Your task to perform on an android device: Open CNN.com Image 0: 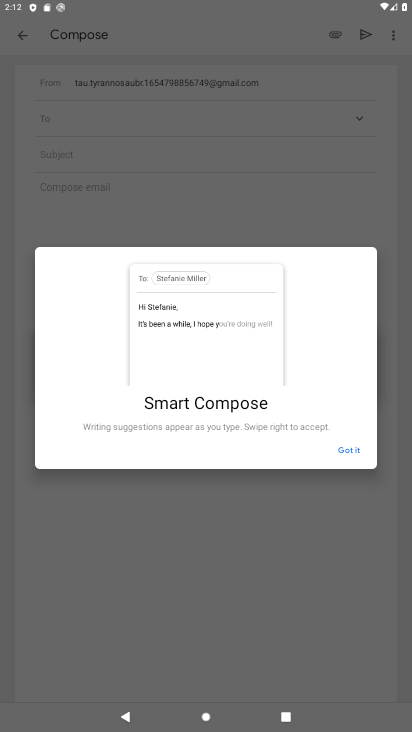
Step 0: press home button
Your task to perform on an android device: Open CNN.com Image 1: 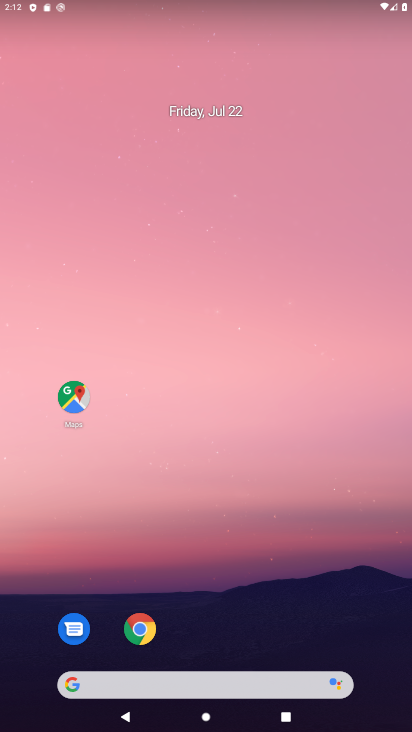
Step 1: click (134, 626)
Your task to perform on an android device: Open CNN.com Image 2: 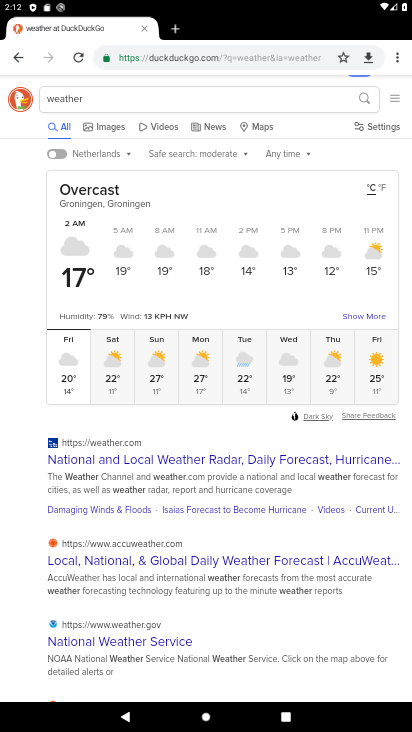
Step 2: click (211, 51)
Your task to perform on an android device: Open CNN.com Image 3: 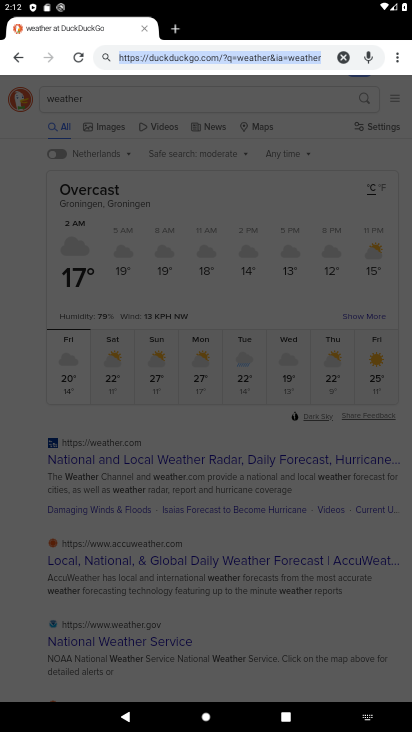
Step 3: type "cnn.com"
Your task to perform on an android device: Open CNN.com Image 4: 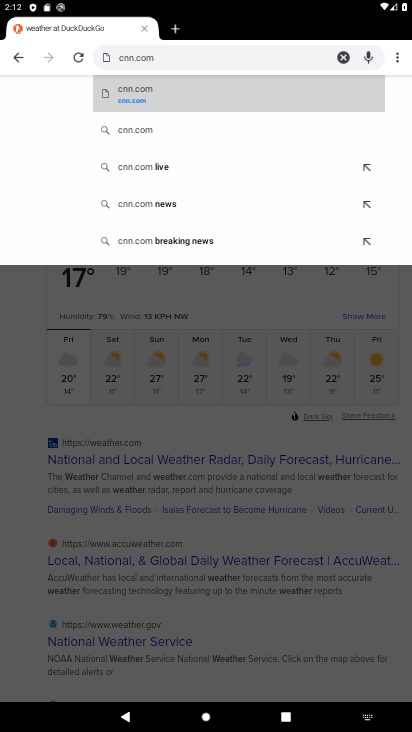
Step 4: click (135, 88)
Your task to perform on an android device: Open CNN.com Image 5: 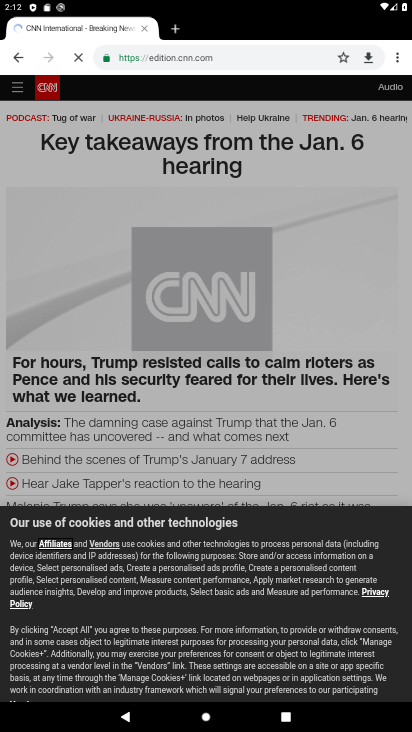
Step 5: task complete